Your task to perform on an android device: Open wifi settings Image 0: 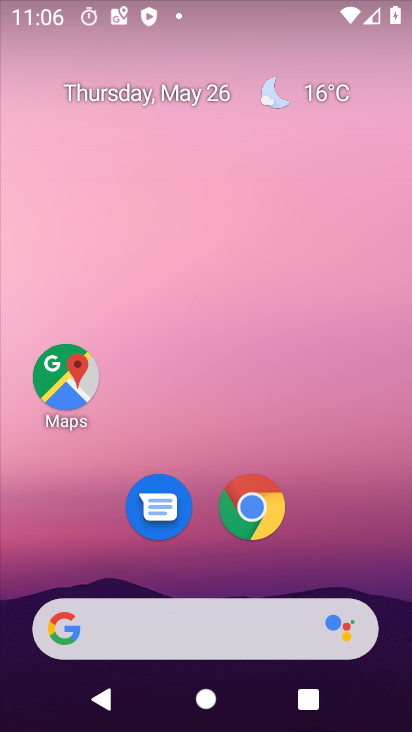
Step 0: drag from (239, 583) to (237, 165)
Your task to perform on an android device: Open wifi settings Image 1: 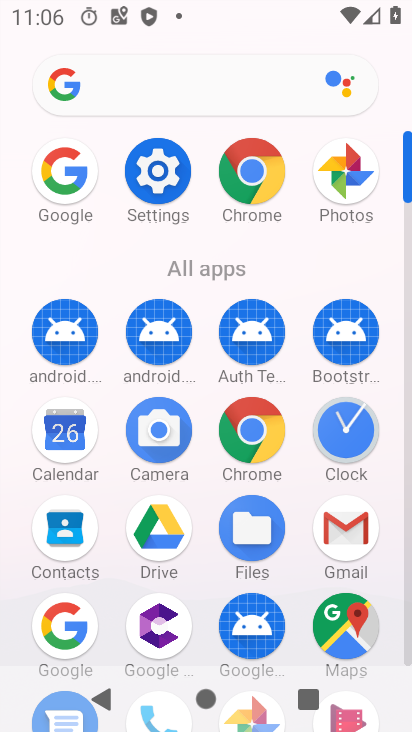
Step 1: click (152, 180)
Your task to perform on an android device: Open wifi settings Image 2: 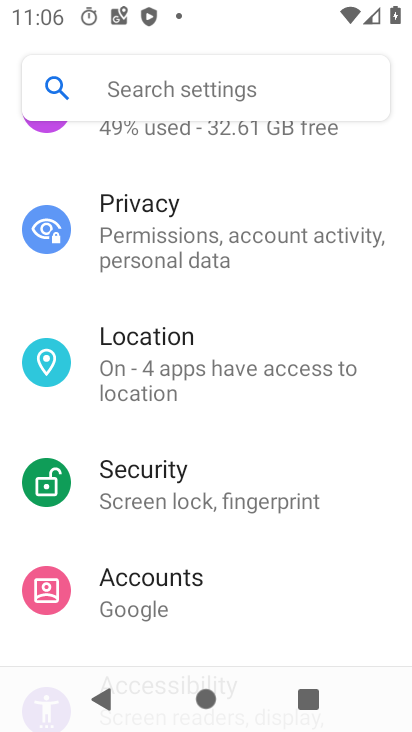
Step 2: drag from (246, 185) to (252, 586)
Your task to perform on an android device: Open wifi settings Image 3: 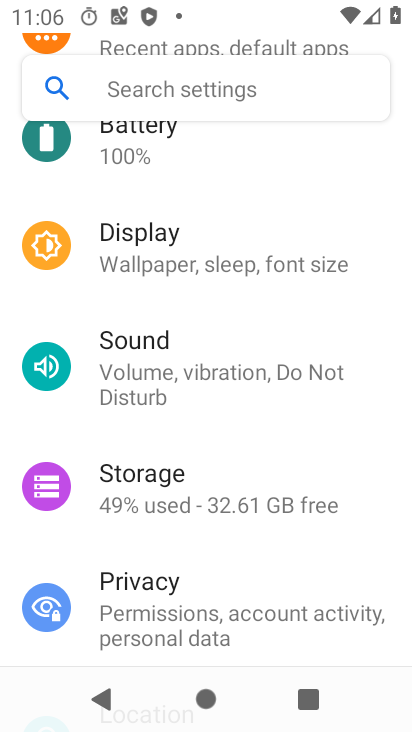
Step 3: drag from (273, 193) to (281, 652)
Your task to perform on an android device: Open wifi settings Image 4: 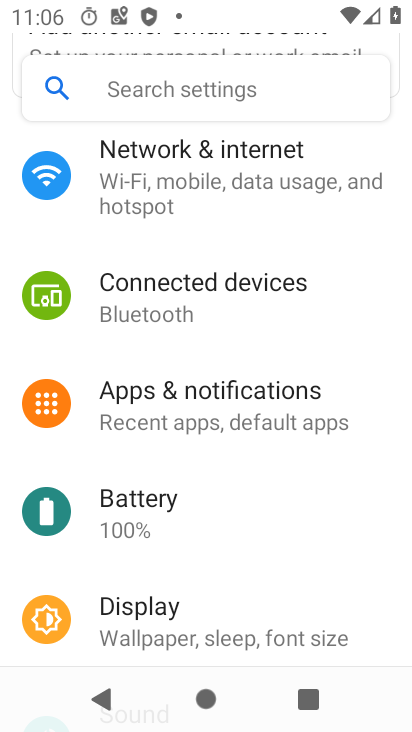
Step 4: click (270, 184)
Your task to perform on an android device: Open wifi settings Image 5: 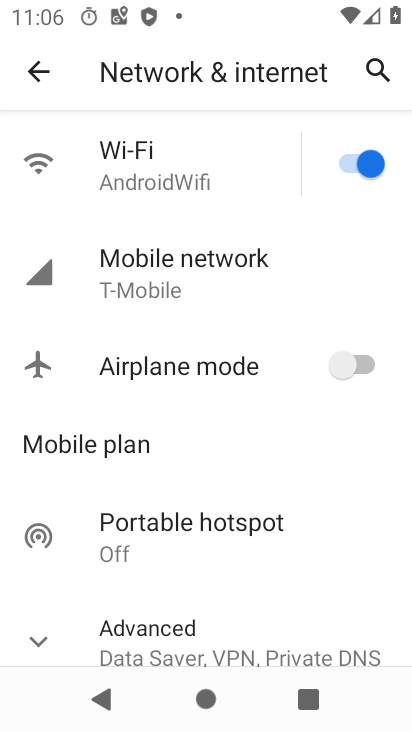
Step 5: click (171, 176)
Your task to perform on an android device: Open wifi settings Image 6: 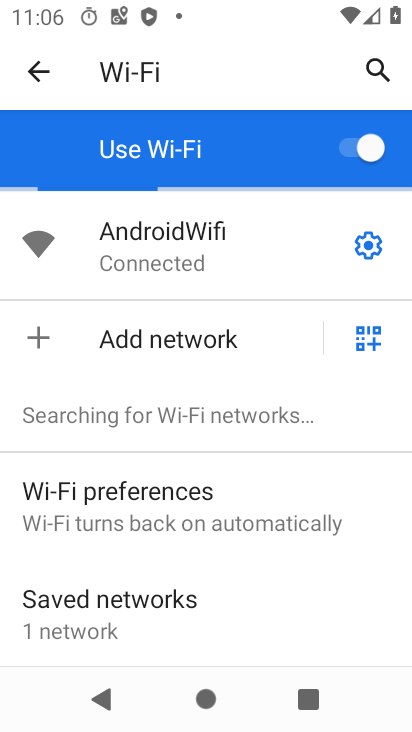
Step 6: click (370, 244)
Your task to perform on an android device: Open wifi settings Image 7: 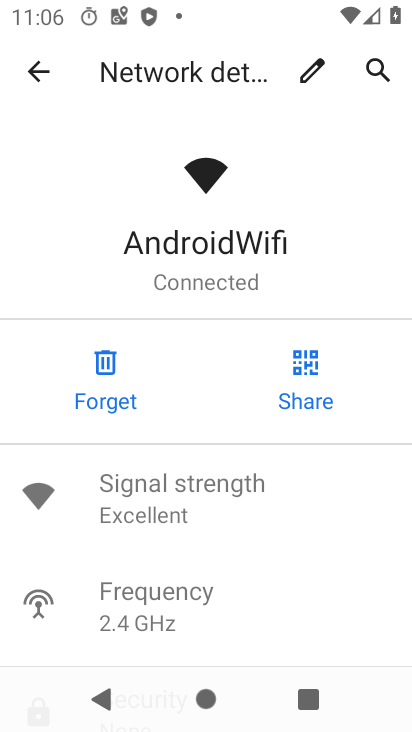
Step 7: task complete